Your task to perform on an android device: Open display settings Image 0: 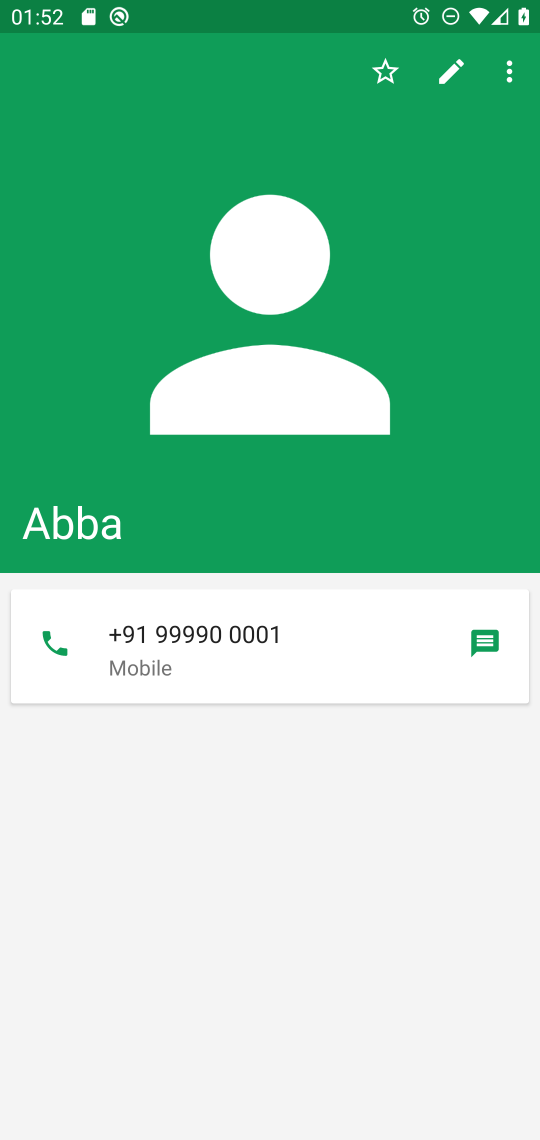
Step 0: press home button
Your task to perform on an android device: Open display settings Image 1: 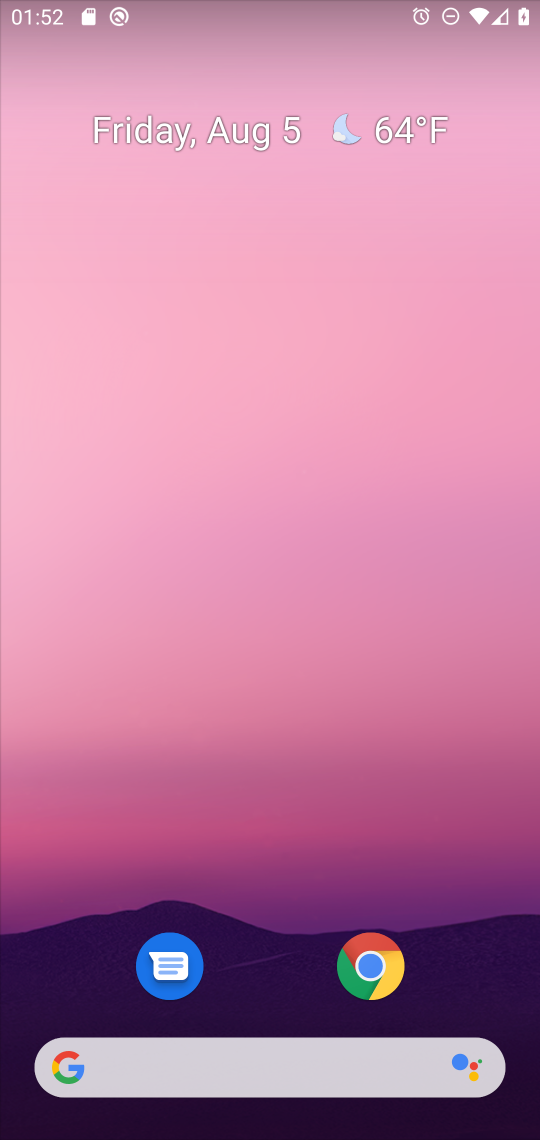
Step 1: drag from (271, 930) to (421, 39)
Your task to perform on an android device: Open display settings Image 2: 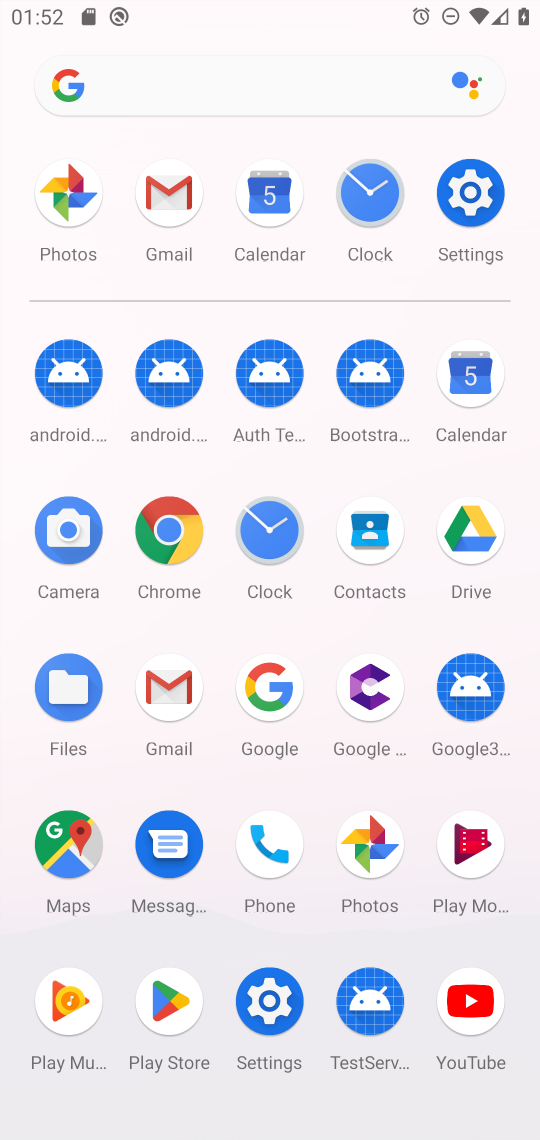
Step 2: click (462, 190)
Your task to perform on an android device: Open display settings Image 3: 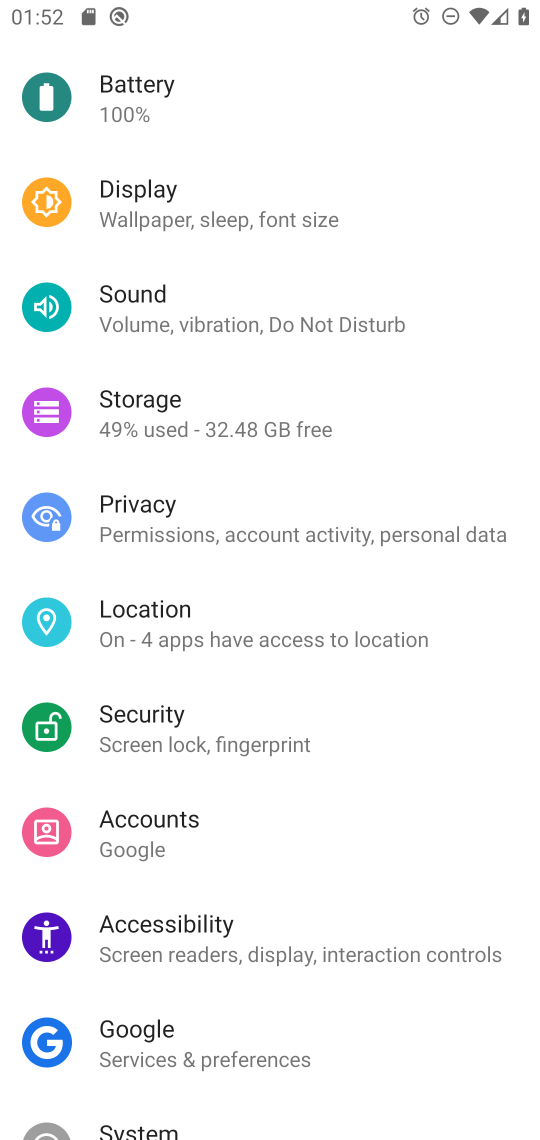
Step 3: click (247, 213)
Your task to perform on an android device: Open display settings Image 4: 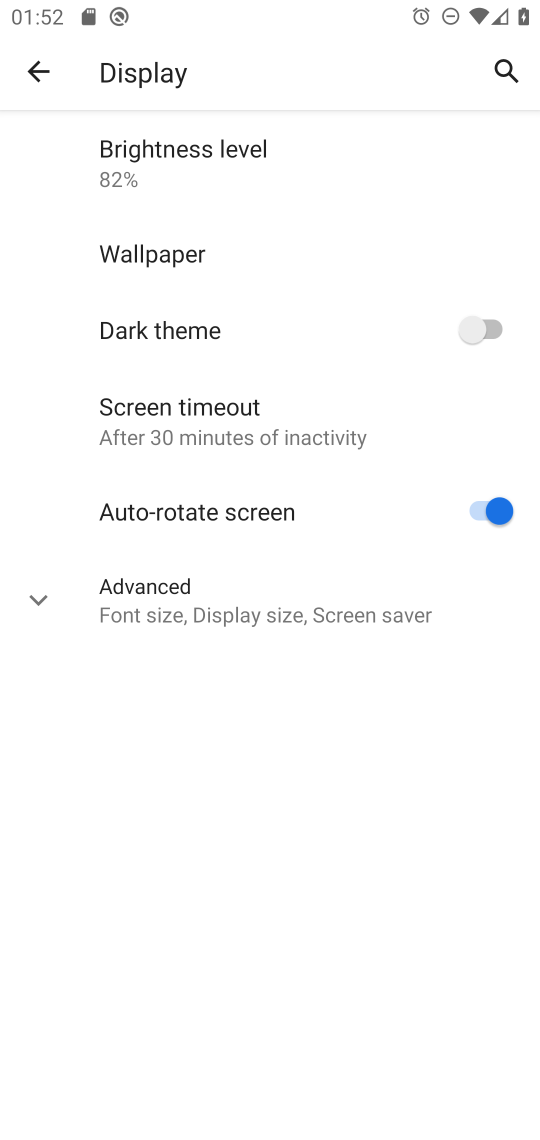
Step 4: task complete